Your task to perform on an android device: allow notifications from all sites in the chrome app Image 0: 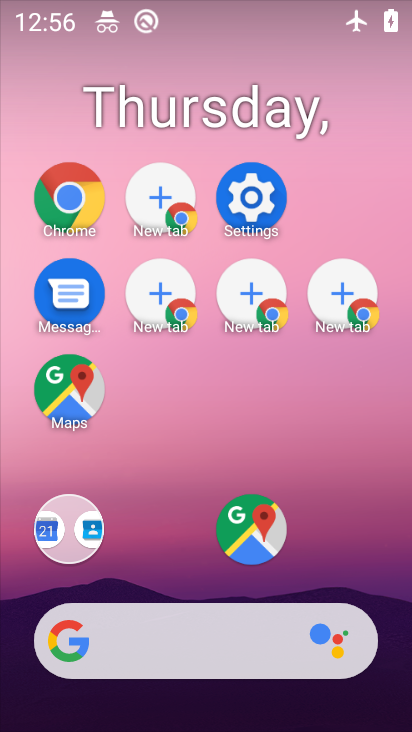
Step 0: click (151, 171)
Your task to perform on an android device: allow notifications from all sites in the chrome app Image 1: 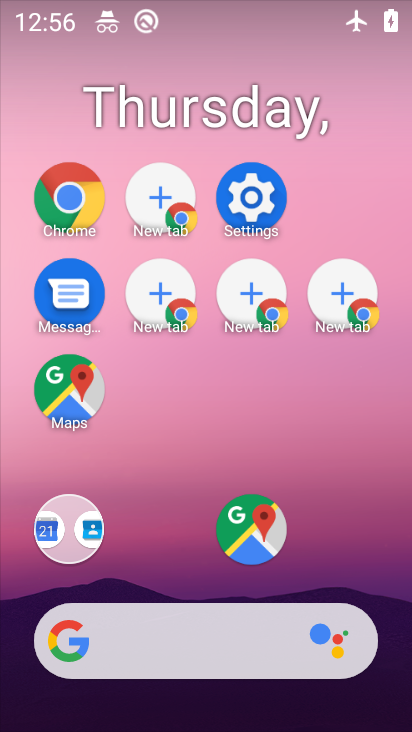
Step 1: drag from (275, 485) to (135, 133)
Your task to perform on an android device: allow notifications from all sites in the chrome app Image 2: 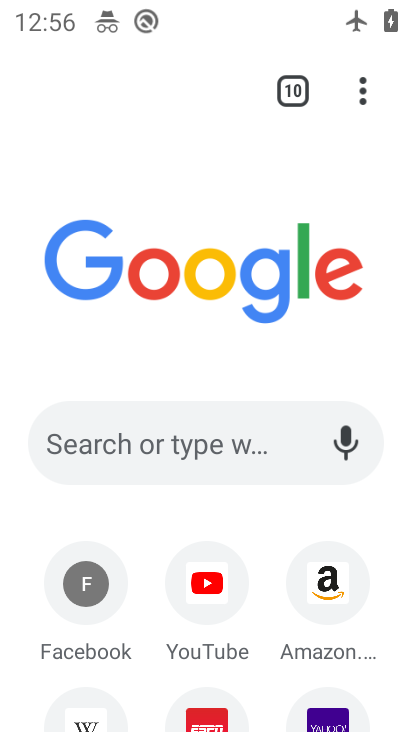
Step 2: click (233, 214)
Your task to perform on an android device: allow notifications from all sites in the chrome app Image 3: 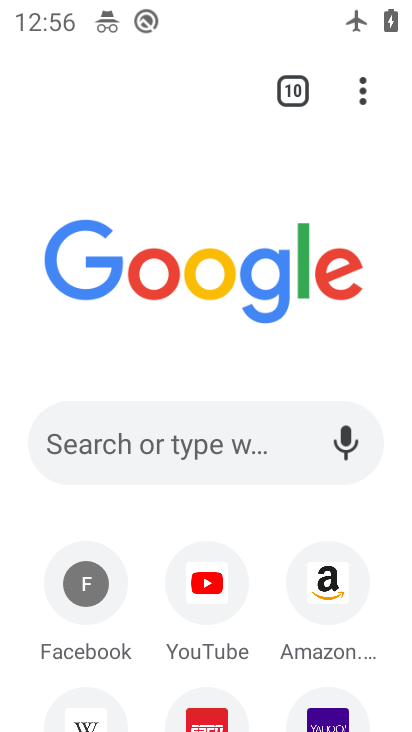
Step 3: click (353, 75)
Your task to perform on an android device: allow notifications from all sites in the chrome app Image 4: 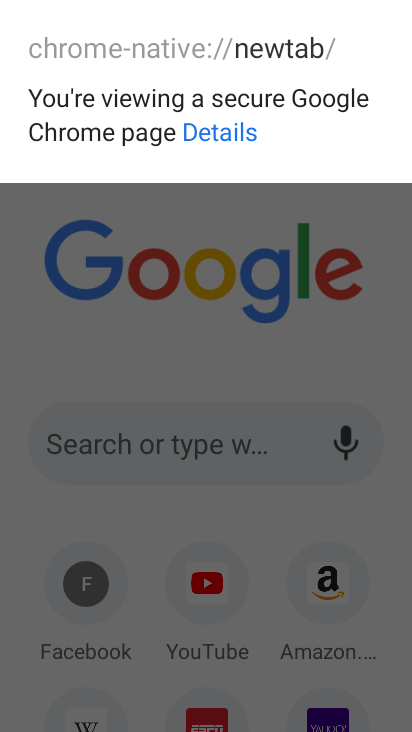
Step 4: drag from (300, 297) to (331, 310)
Your task to perform on an android device: allow notifications from all sites in the chrome app Image 5: 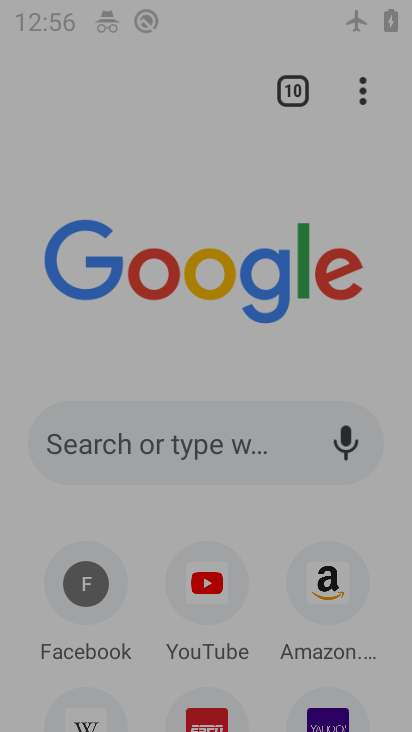
Step 5: click (321, 320)
Your task to perform on an android device: allow notifications from all sites in the chrome app Image 6: 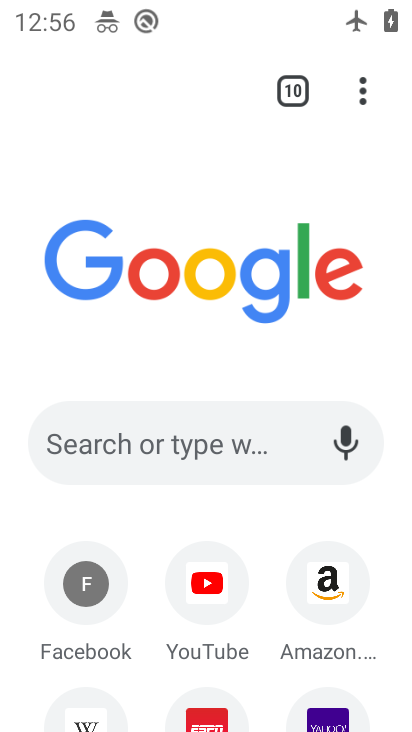
Step 6: drag from (362, 88) to (109, 554)
Your task to perform on an android device: allow notifications from all sites in the chrome app Image 7: 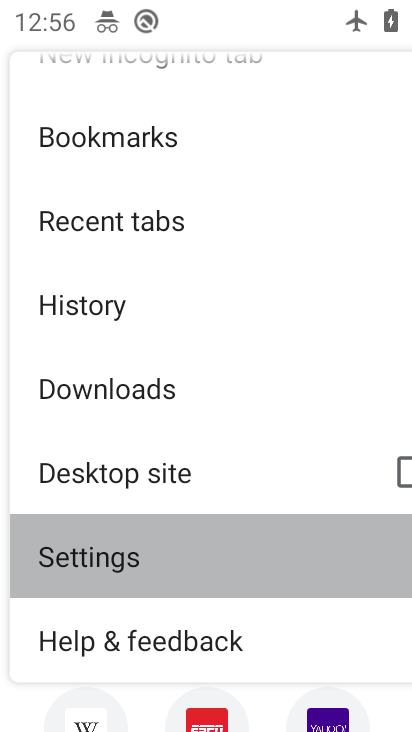
Step 7: click (106, 553)
Your task to perform on an android device: allow notifications from all sites in the chrome app Image 8: 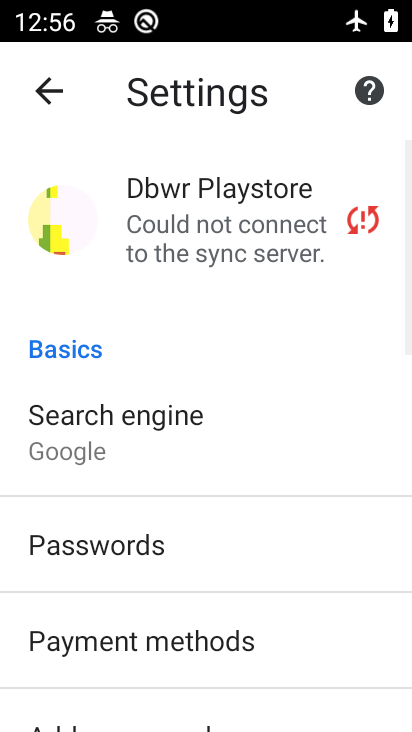
Step 8: drag from (204, 531) to (251, 180)
Your task to perform on an android device: allow notifications from all sites in the chrome app Image 9: 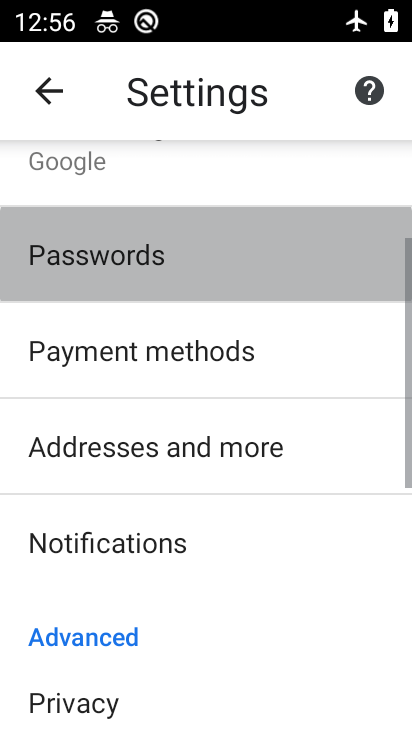
Step 9: drag from (199, 437) to (199, 261)
Your task to perform on an android device: allow notifications from all sites in the chrome app Image 10: 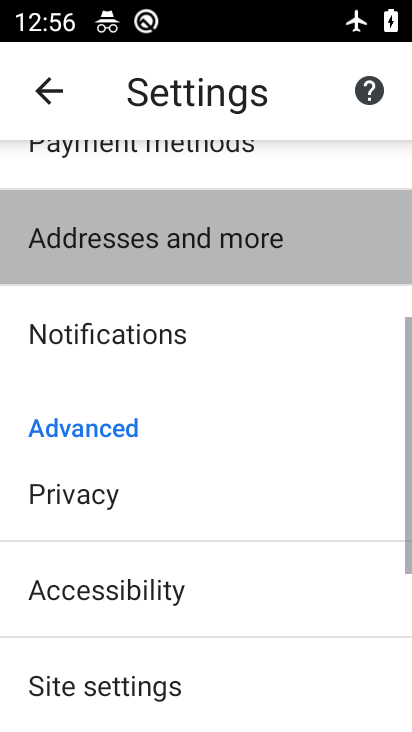
Step 10: drag from (153, 449) to (157, 226)
Your task to perform on an android device: allow notifications from all sites in the chrome app Image 11: 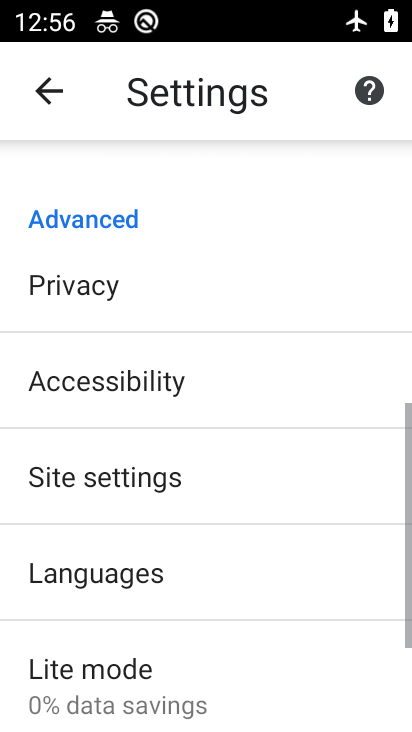
Step 11: drag from (191, 535) to (283, 249)
Your task to perform on an android device: allow notifications from all sites in the chrome app Image 12: 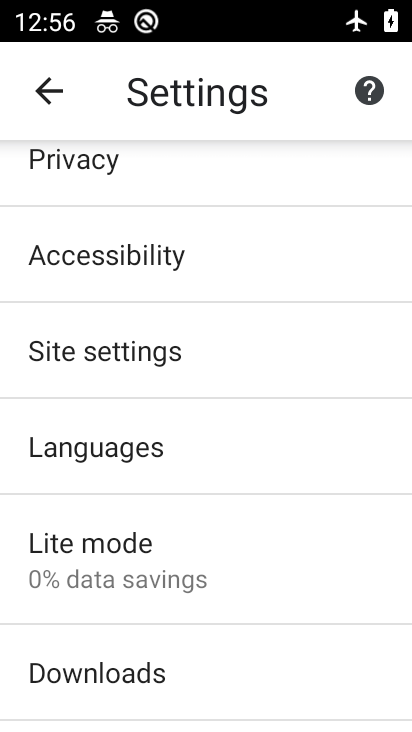
Step 12: click (86, 348)
Your task to perform on an android device: allow notifications from all sites in the chrome app Image 13: 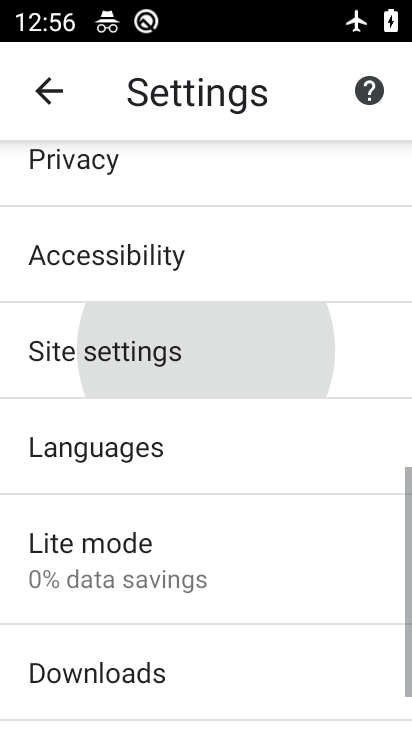
Step 13: click (86, 348)
Your task to perform on an android device: allow notifications from all sites in the chrome app Image 14: 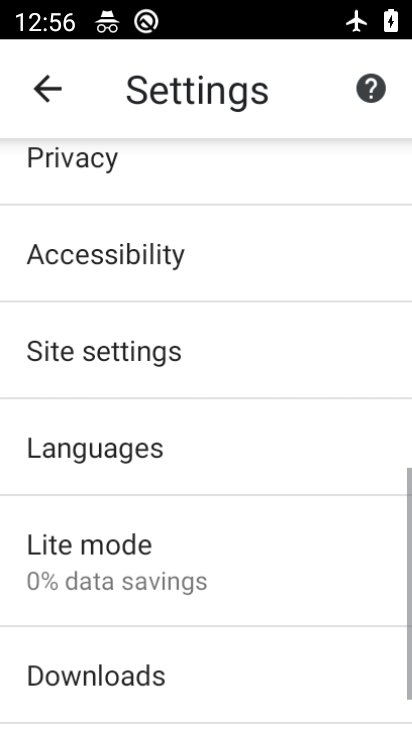
Step 14: click (98, 370)
Your task to perform on an android device: allow notifications from all sites in the chrome app Image 15: 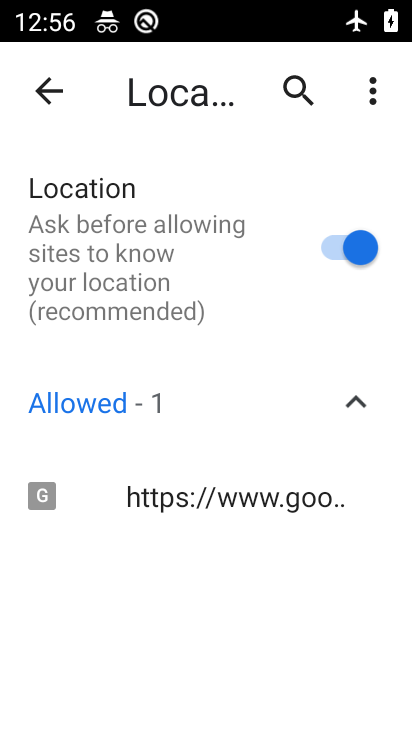
Step 15: click (171, 189)
Your task to perform on an android device: allow notifications from all sites in the chrome app Image 16: 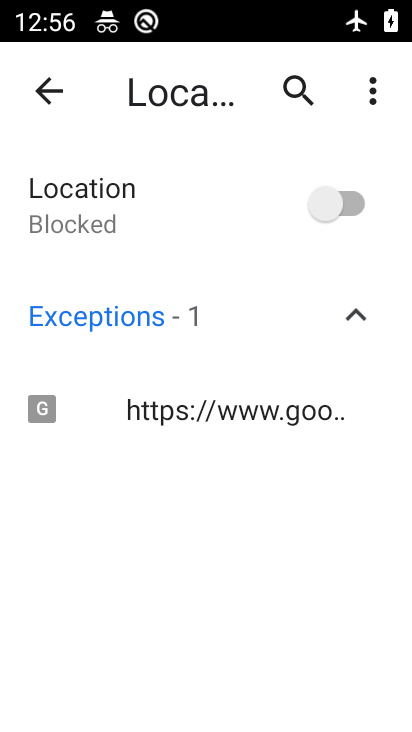
Step 16: click (45, 80)
Your task to perform on an android device: allow notifications from all sites in the chrome app Image 17: 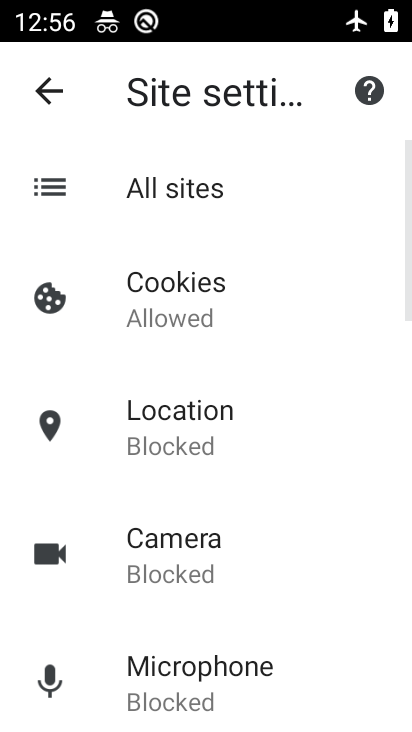
Step 17: click (160, 189)
Your task to perform on an android device: allow notifications from all sites in the chrome app Image 18: 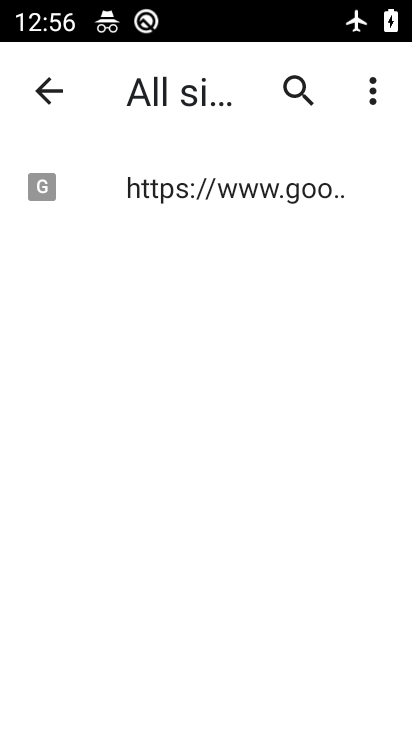
Step 18: click (280, 188)
Your task to perform on an android device: allow notifications from all sites in the chrome app Image 19: 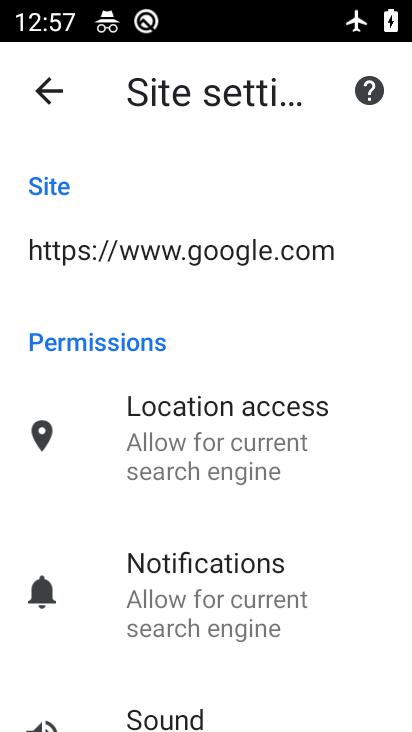
Step 19: task complete